Your task to perform on an android device: What's the weather going to be this weekend? Image 0: 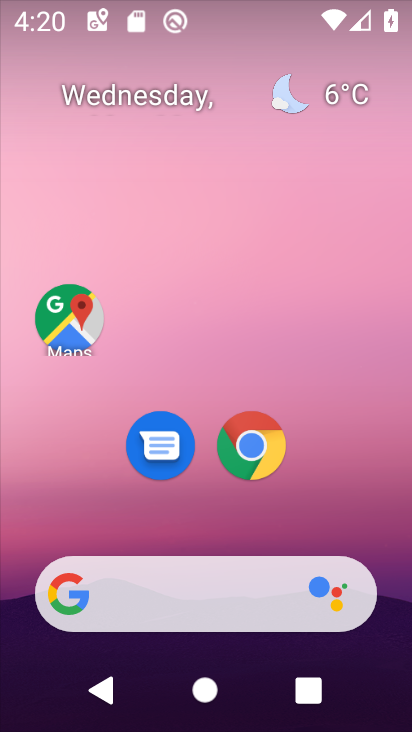
Step 0: drag from (220, 440) to (274, 80)
Your task to perform on an android device: What's the weather going to be this weekend? Image 1: 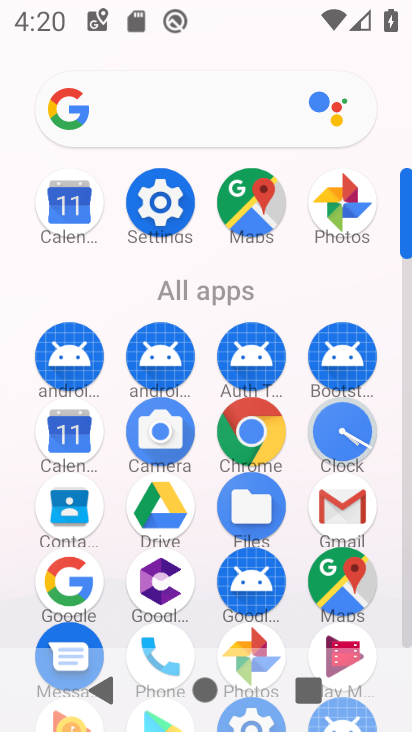
Step 1: click (193, 121)
Your task to perform on an android device: What's the weather going to be this weekend? Image 2: 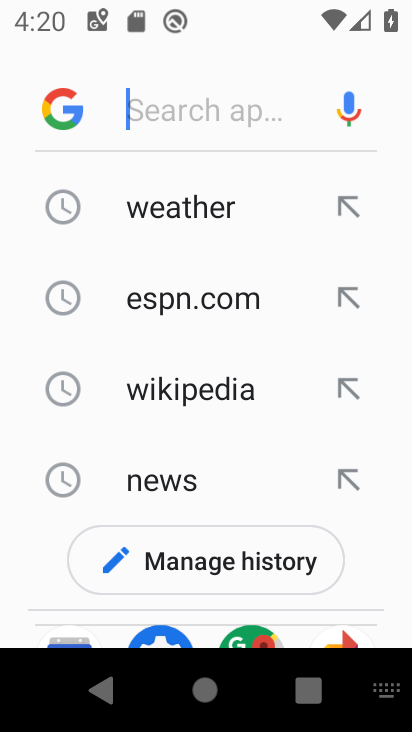
Step 2: click (127, 220)
Your task to perform on an android device: What's the weather going to be this weekend? Image 3: 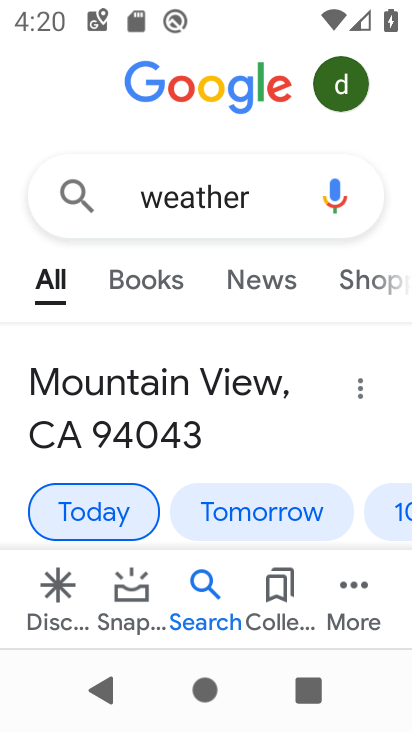
Step 3: drag from (264, 479) to (258, 211)
Your task to perform on an android device: What's the weather going to be this weekend? Image 4: 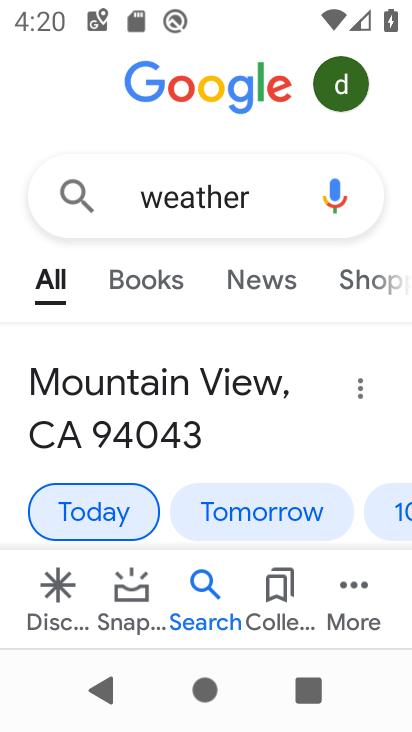
Step 4: click (386, 504)
Your task to perform on an android device: What's the weather going to be this weekend? Image 5: 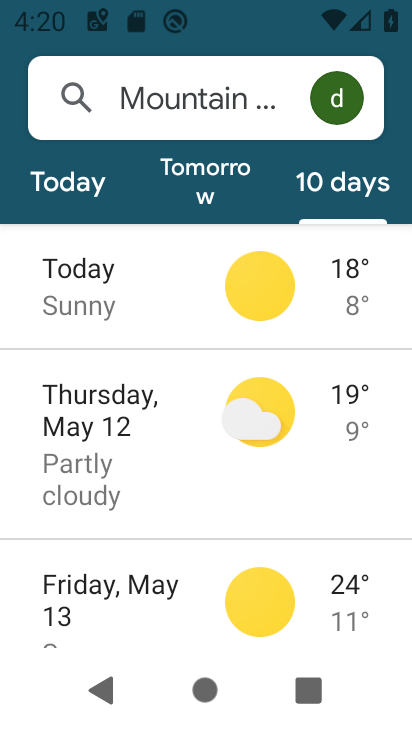
Step 5: task complete